Your task to perform on an android device: Open Yahoo.com Image 0: 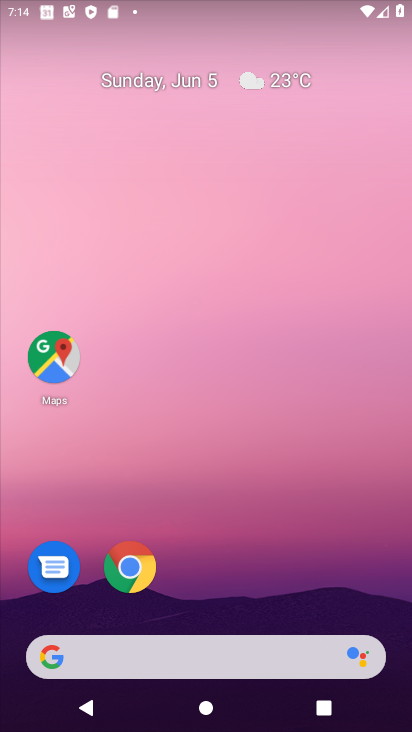
Step 0: drag from (387, 567) to (357, 311)
Your task to perform on an android device: Open Yahoo.com Image 1: 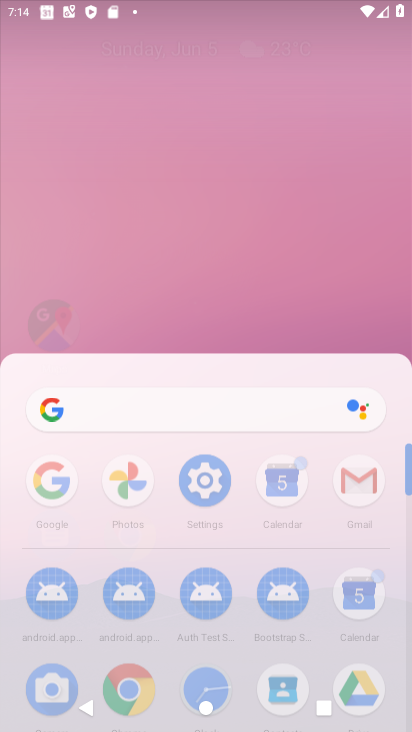
Step 1: click (249, 37)
Your task to perform on an android device: Open Yahoo.com Image 2: 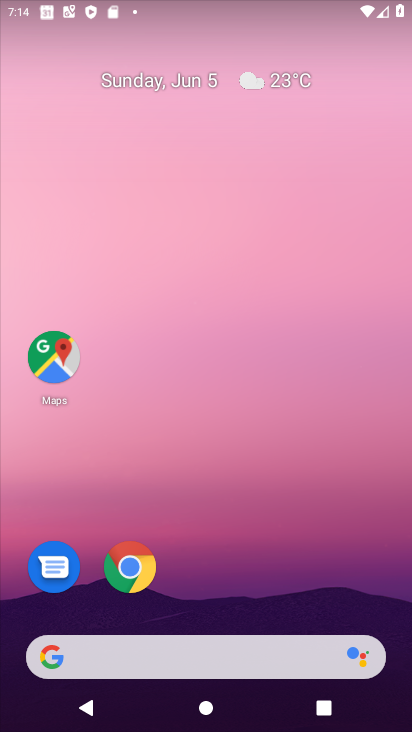
Step 2: drag from (374, 454) to (195, 12)
Your task to perform on an android device: Open Yahoo.com Image 3: 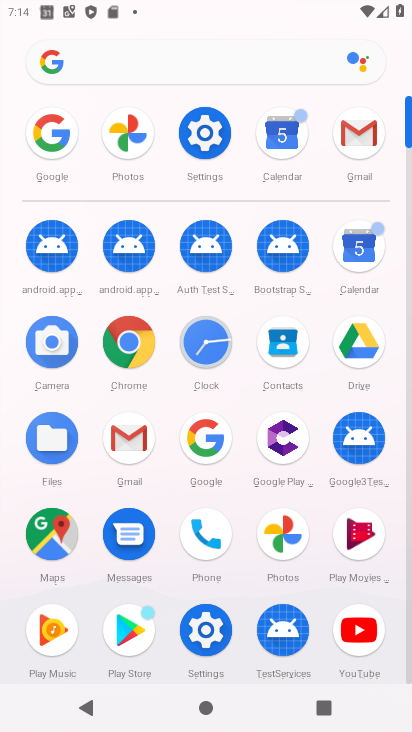
Step 3: click (202, 445)
Your task to perform on an android device: Open Yahoo.com Image 4: 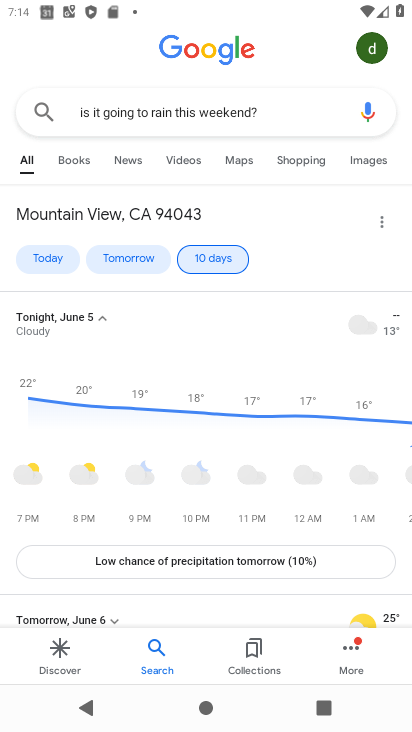
Step 4: press back button
Your task to perform on an android device: Open Yahoo.com Image 5: 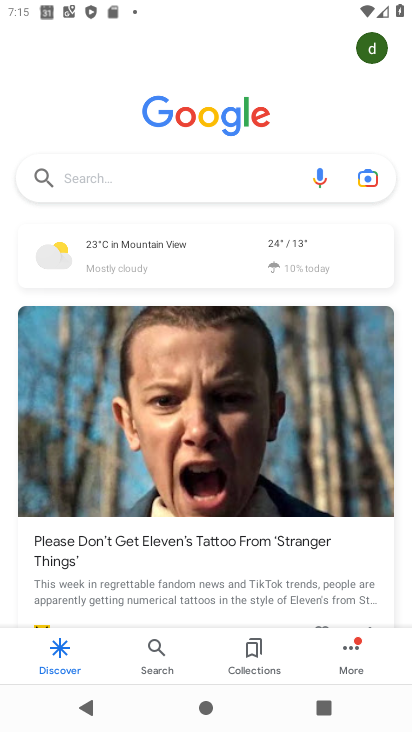
Step 5: click (108, 174)
Your task to perform on an android device: Open Yahoo.com Image 6: 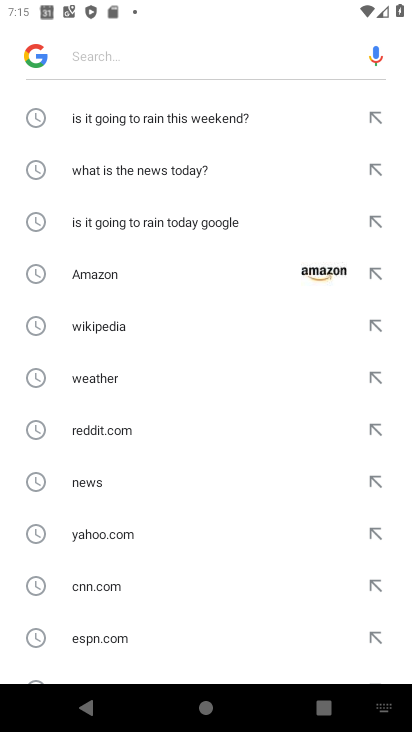
Step 6: click (129, 528)
Your task to perform on an android device: Open Yahoo.com Image 7: 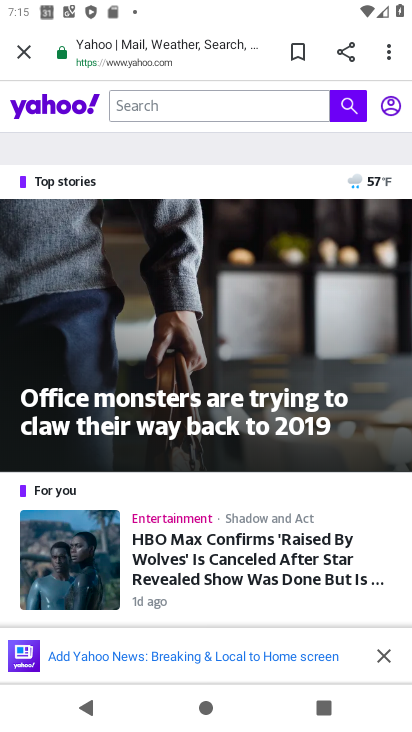
Step 7: task complete